Your task to perform on an android device: Do I have any events today? Image 0: 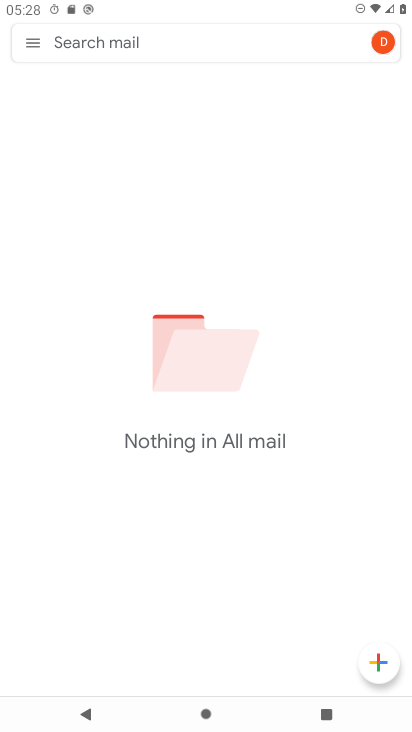
Step 0: press home button
Your task to perform on an android device: Do I have any events today? Image 1: 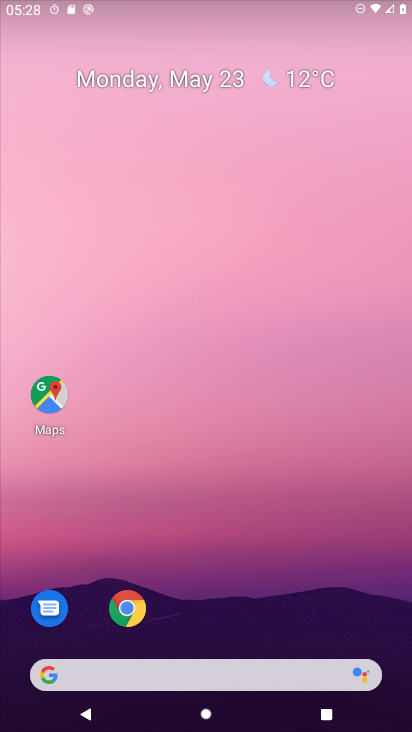
Step 1: drag from (274, 586) to (249, 685)
Your task to perform on an android device: Do I have any events today? Image 2: 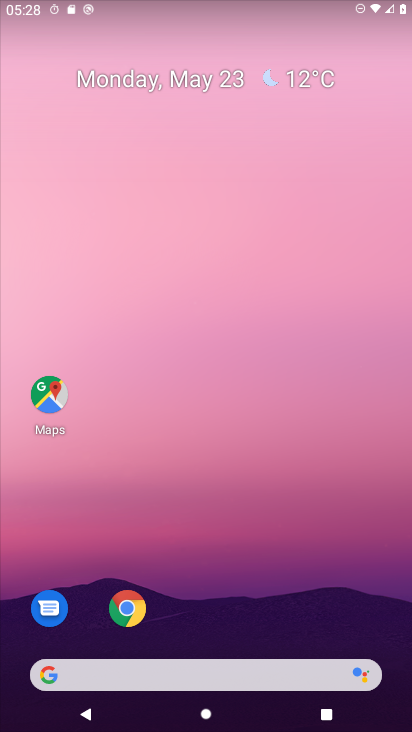
Step 2: click (163, 82)
Your task to perform on an android device: Do I have any events today? Image 3: 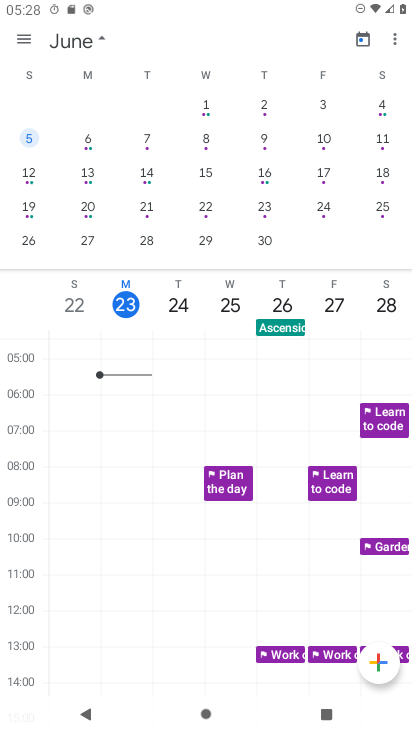
Step 3: task complete